Your task to perform on an android device: Search for pizza restaurants on Maps Image 0: 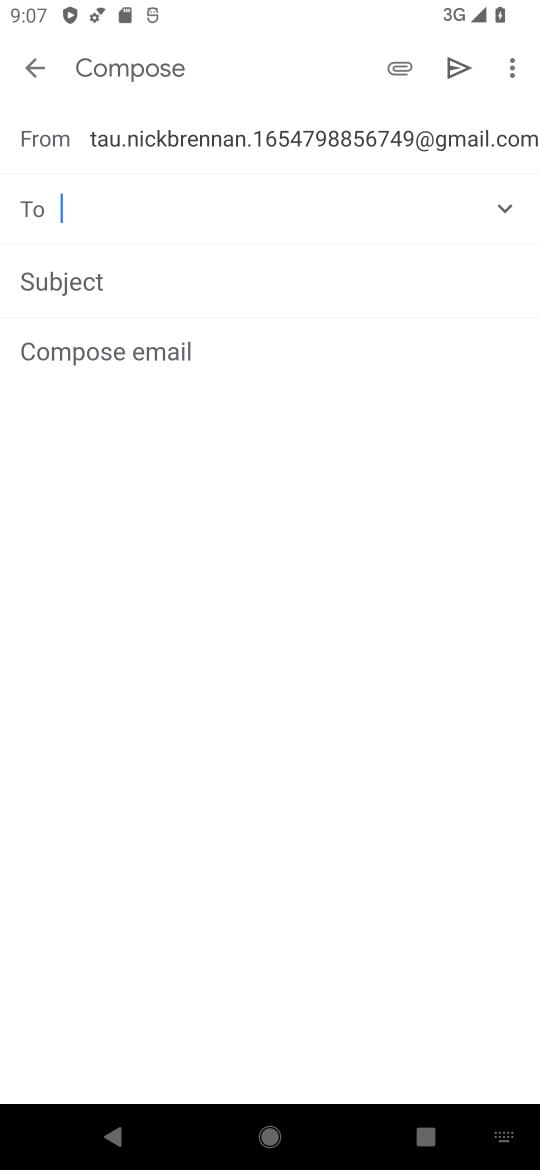
Step 0: press home button
Your task to perform on an android device: Search for pizza restaurants on Maps Image 1: 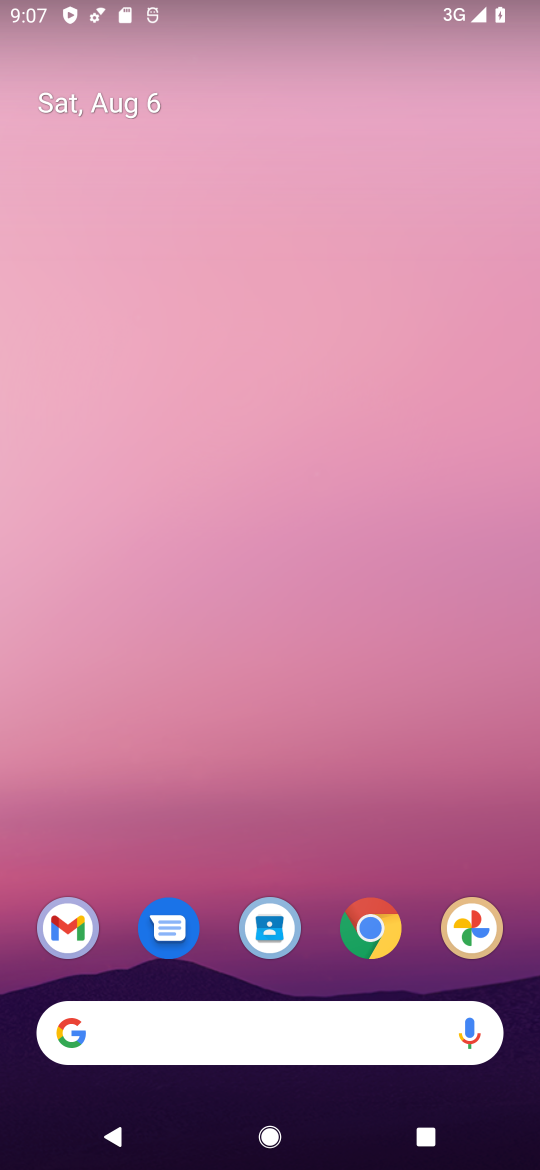
Step 1: drag from (276, 828) to (279, 114)
Your task to perform on an android device: Search for pizza restaurants on Maps Image 2: 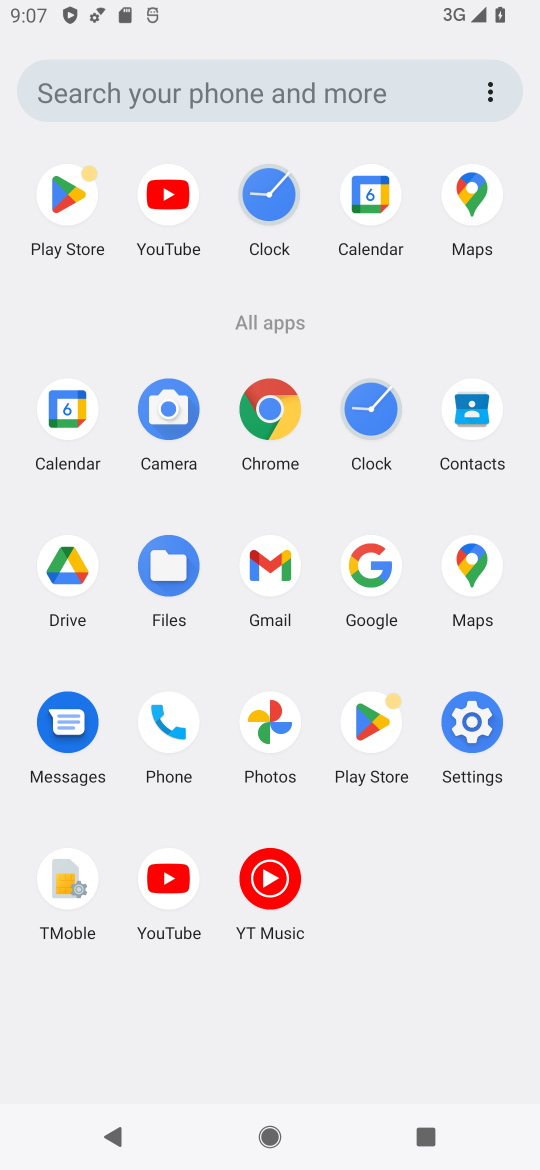
Step 2: click (471, 189)
Your task to perform on an android device: Search for pizza restaurants on Maps Image 3: 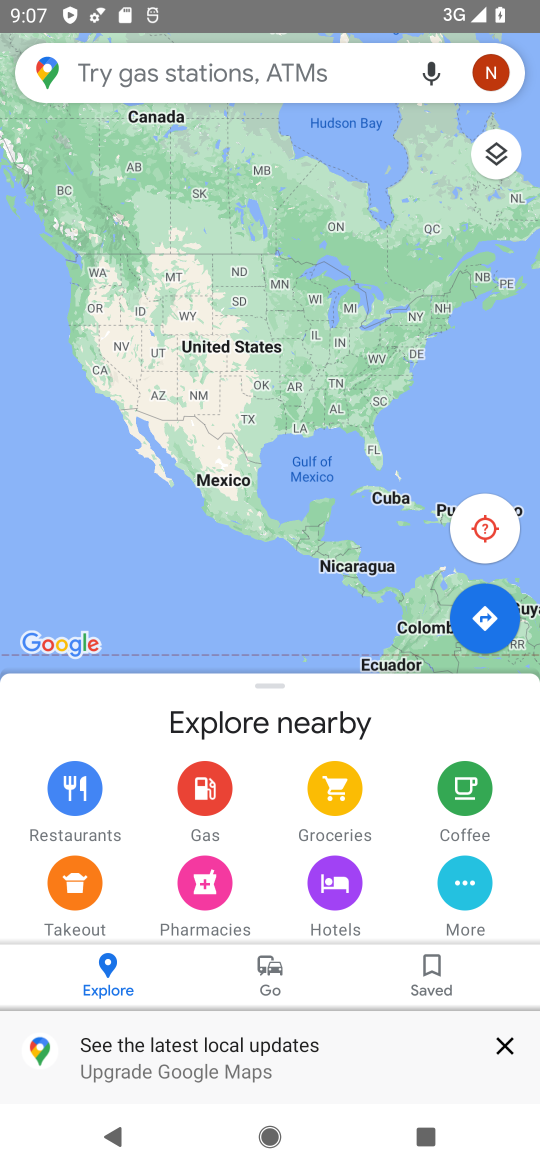
Step 3: click (193, 75)
Your task to perform on an android device: Search for pizza restaurants on Maps Image 4: 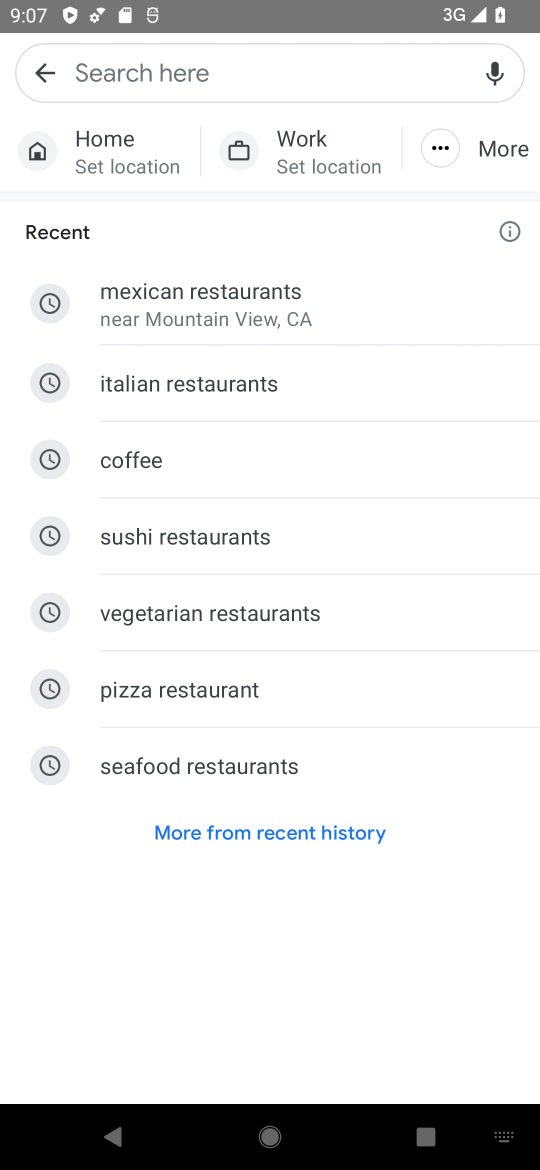
Step 4: click (183, 686)
Your task to perform on an android device: Search for pizza restaurants on Maps Image 5: 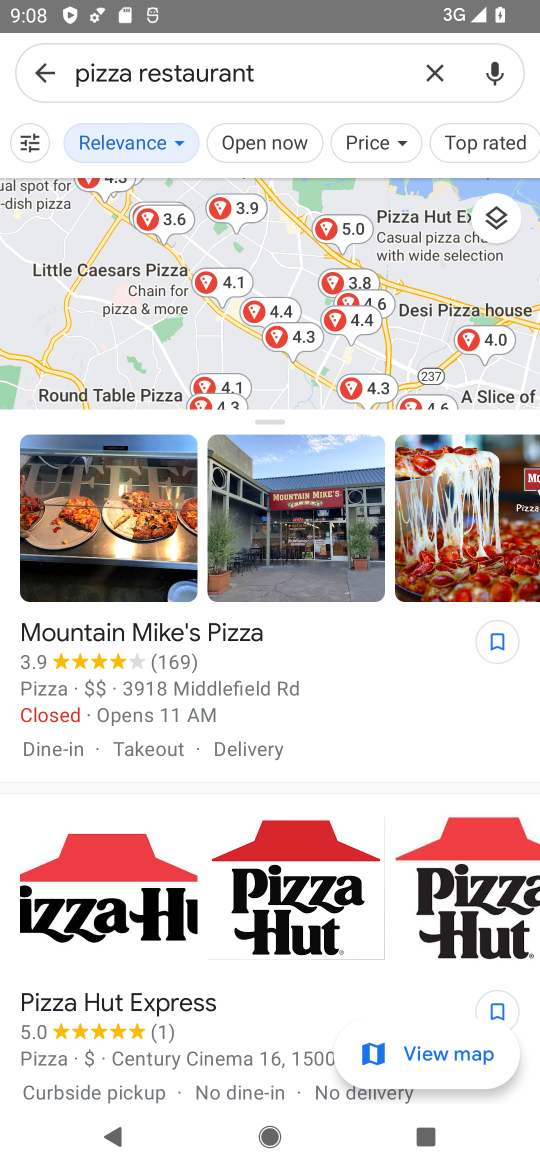
Step 5: task complete